Your task to perform on an android device: open chrome privacy settings Image 0: 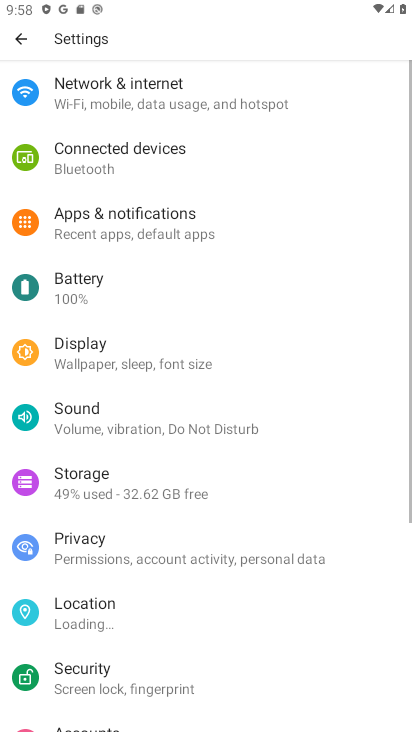
Step 0: press home button
Your task to perform on an android device: open chrome privacy settings Image 1: 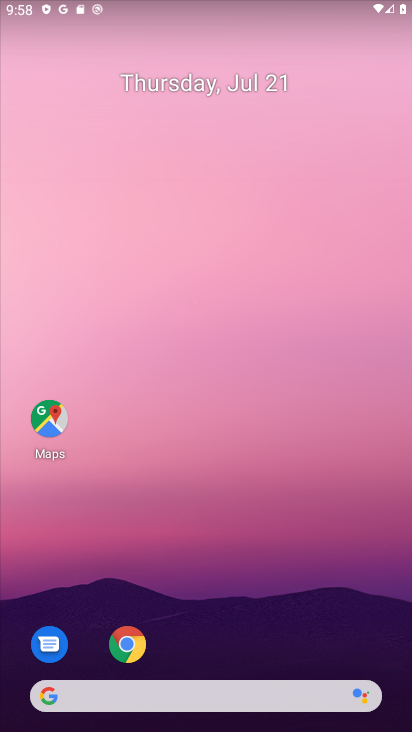
Step 1: click (126, 642)
Your task to perform on an android device: open chrome privacy settings Image 2: 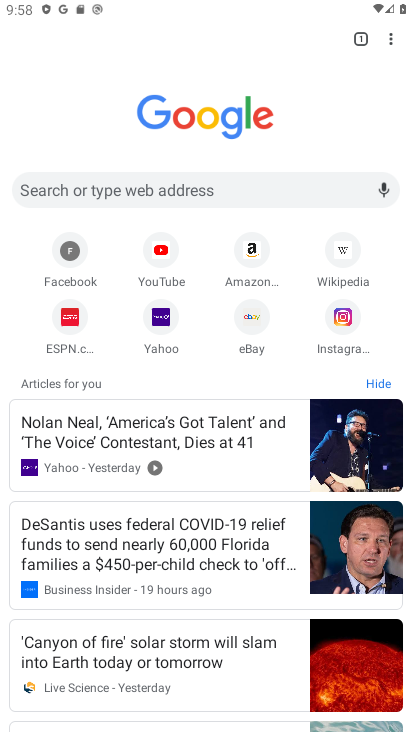
Step 2: click (390, 38)
Your task to perform on an android device: open chrome privacy settings Image 3: 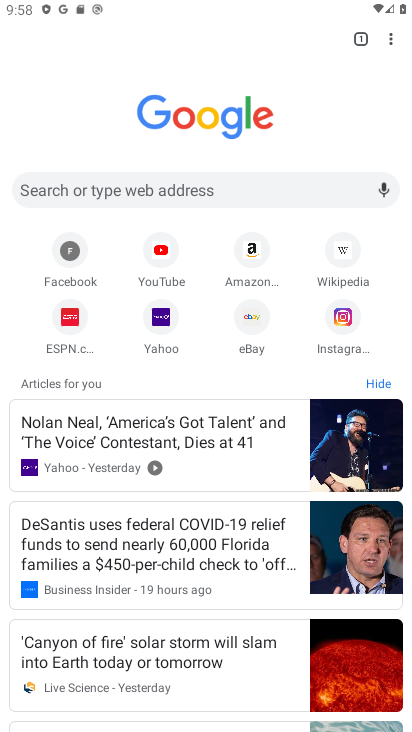
Step 3: click (390, 38)
Your task to perform on an android device: open chrome privacy settings Image 4: 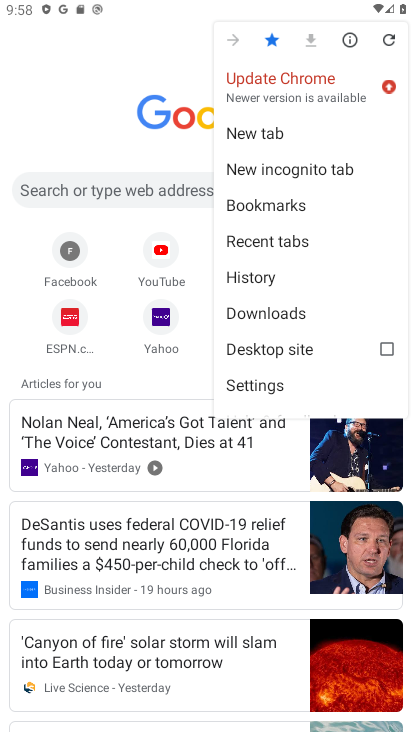
Step 4: click (275, 388)
Your task to perform on an android device: open chrome privacy settings Image 5: 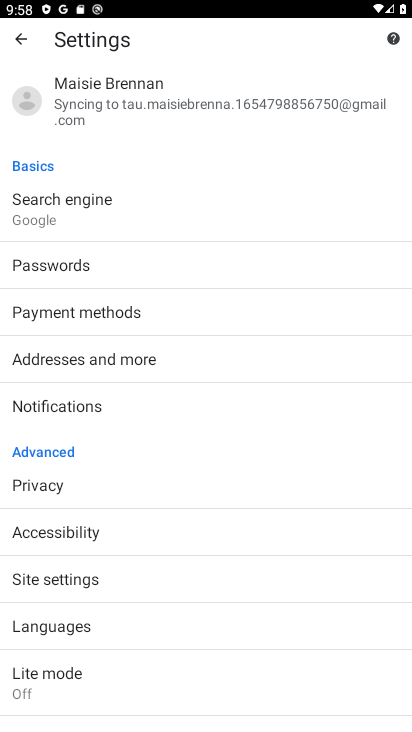
Step 5: click (70, 484)
Your task to perform on an android device: open chrome privacy settings Image 6: 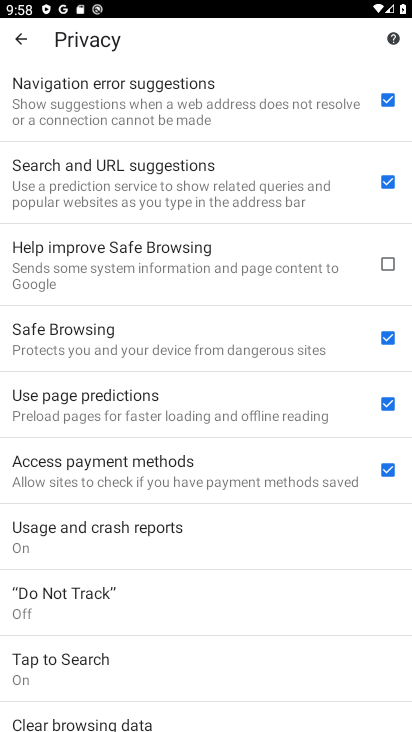
Step 6: task complete